Your task to perform on an android device: uninstall "Google Translate" Image 0: 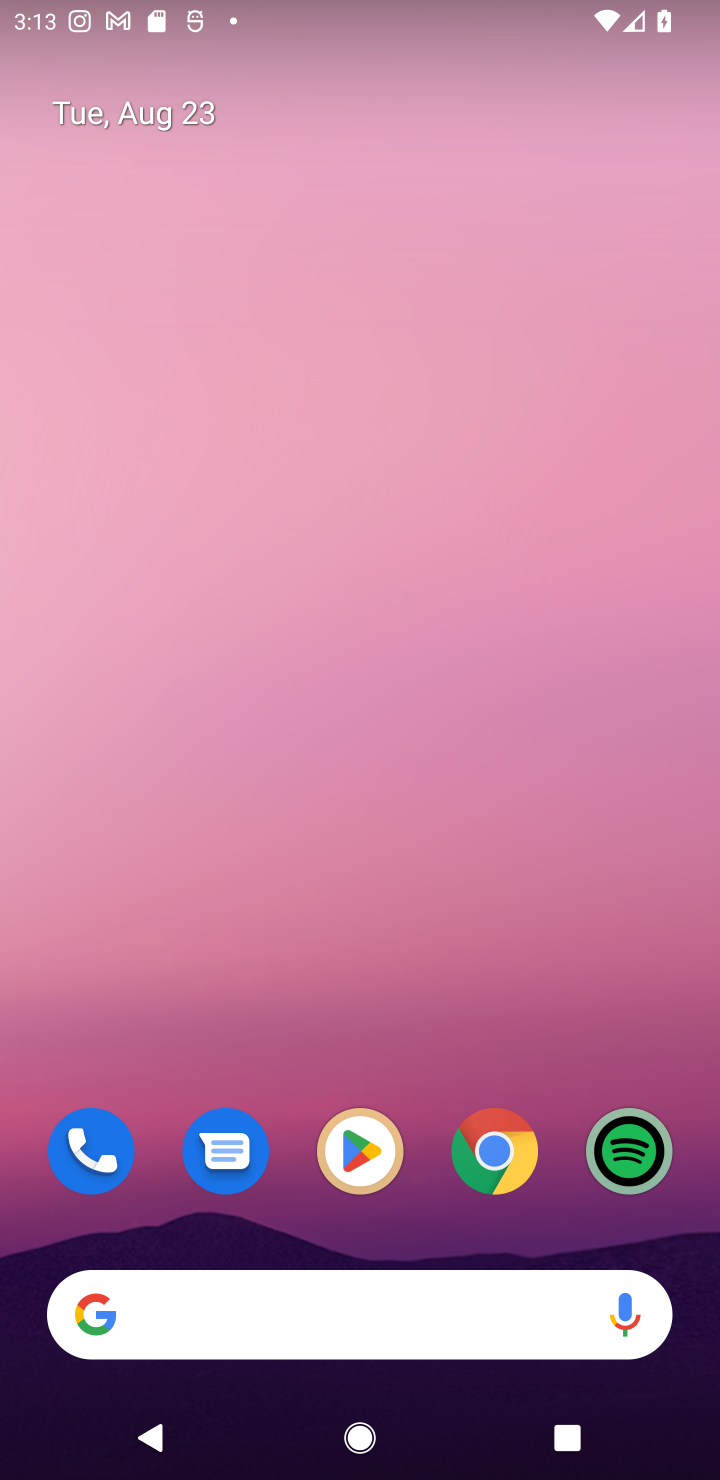
Step 0: press home button
Your task to perform on an android device: uninstall "Google Translate" Image 1: 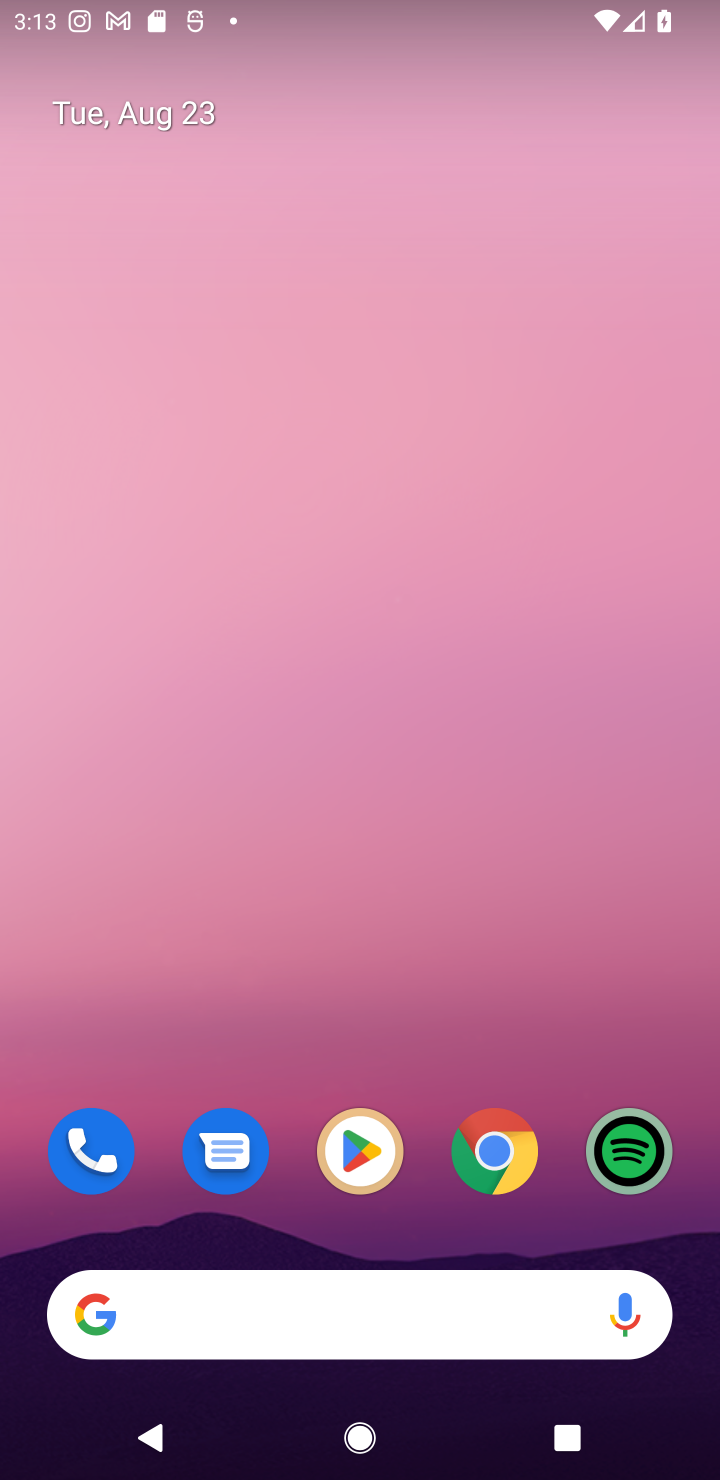
Step 1: click (366, 1143)
Your task to perform on an android device: uninstall "Google Translate" Image 2: 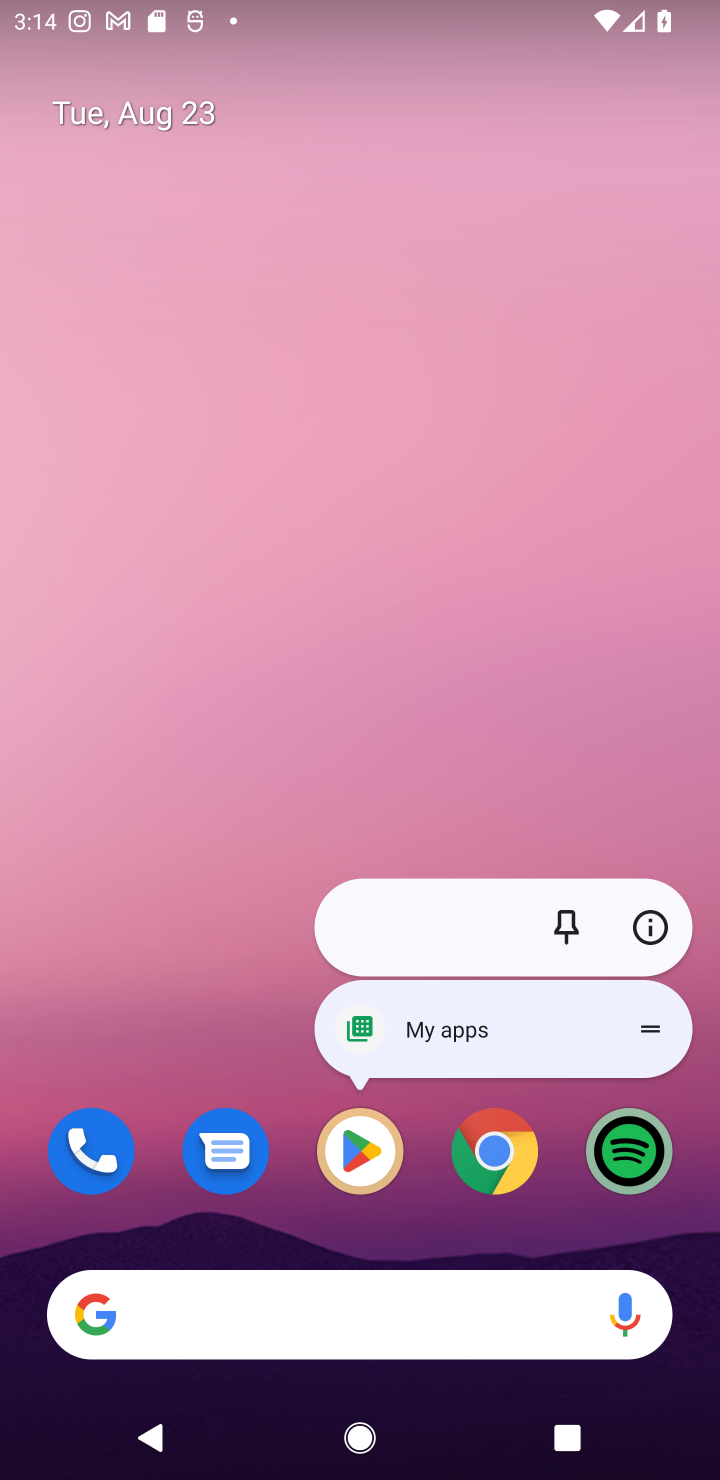
Step 2: click (366, 1143)
Your task to perform on an android device: uninstall "Google Translate" Image 3: 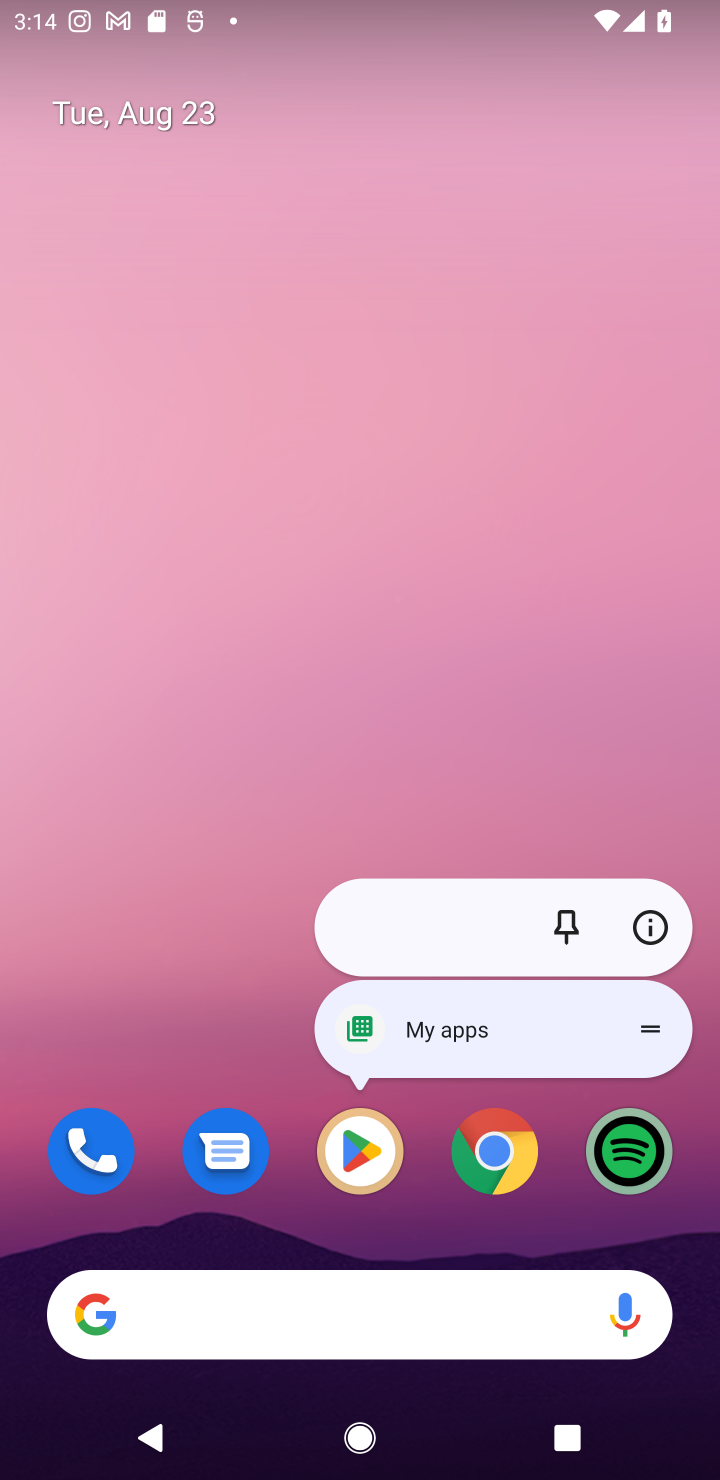
Step 3: click (366, 1141)
Your task to perform on an android device: uninstall "Google Translate" Image 4: 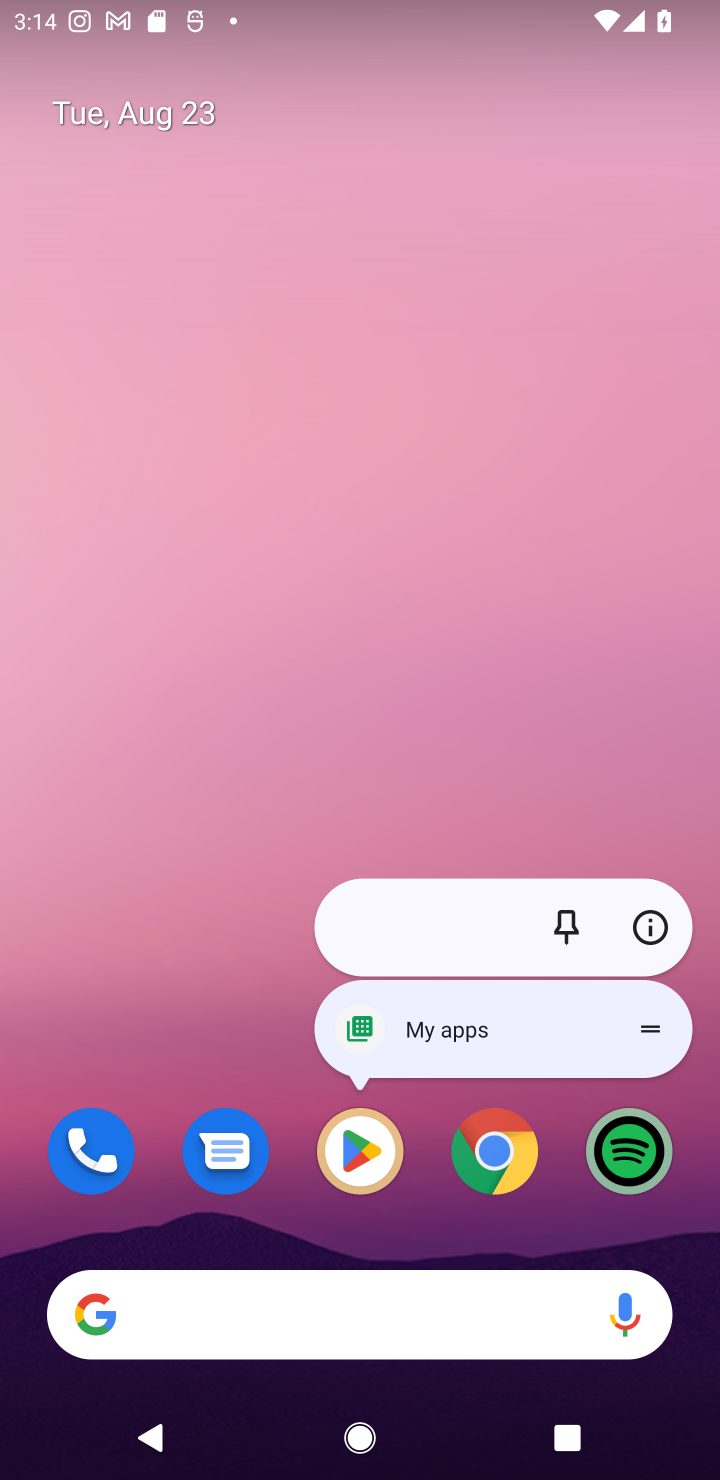
Step 4: click (347, 1164)
Your task to perform on an android device: uninstall "Google Translate" Image 5: 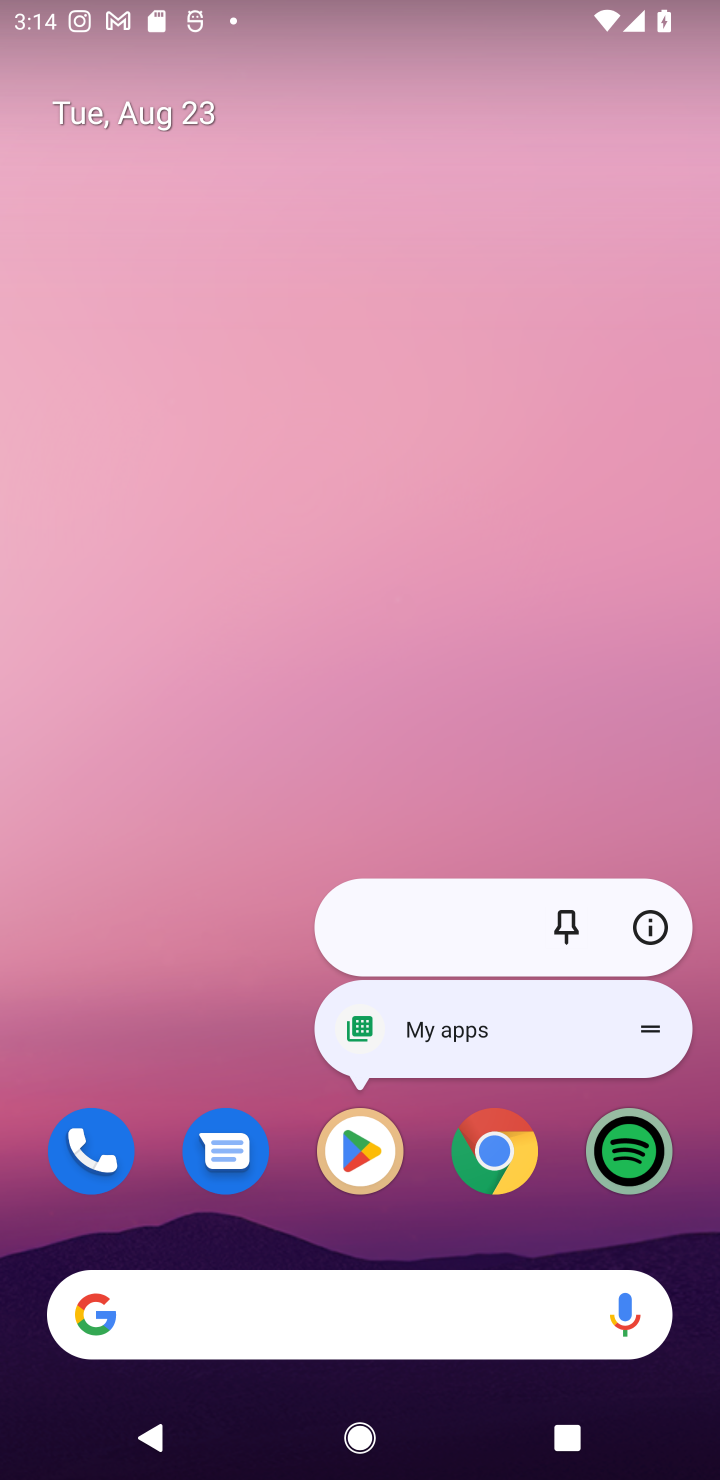
Step 5: click (349, 1154)
Your task to perform on an android device: uninstall "Google Translate" Image 6: 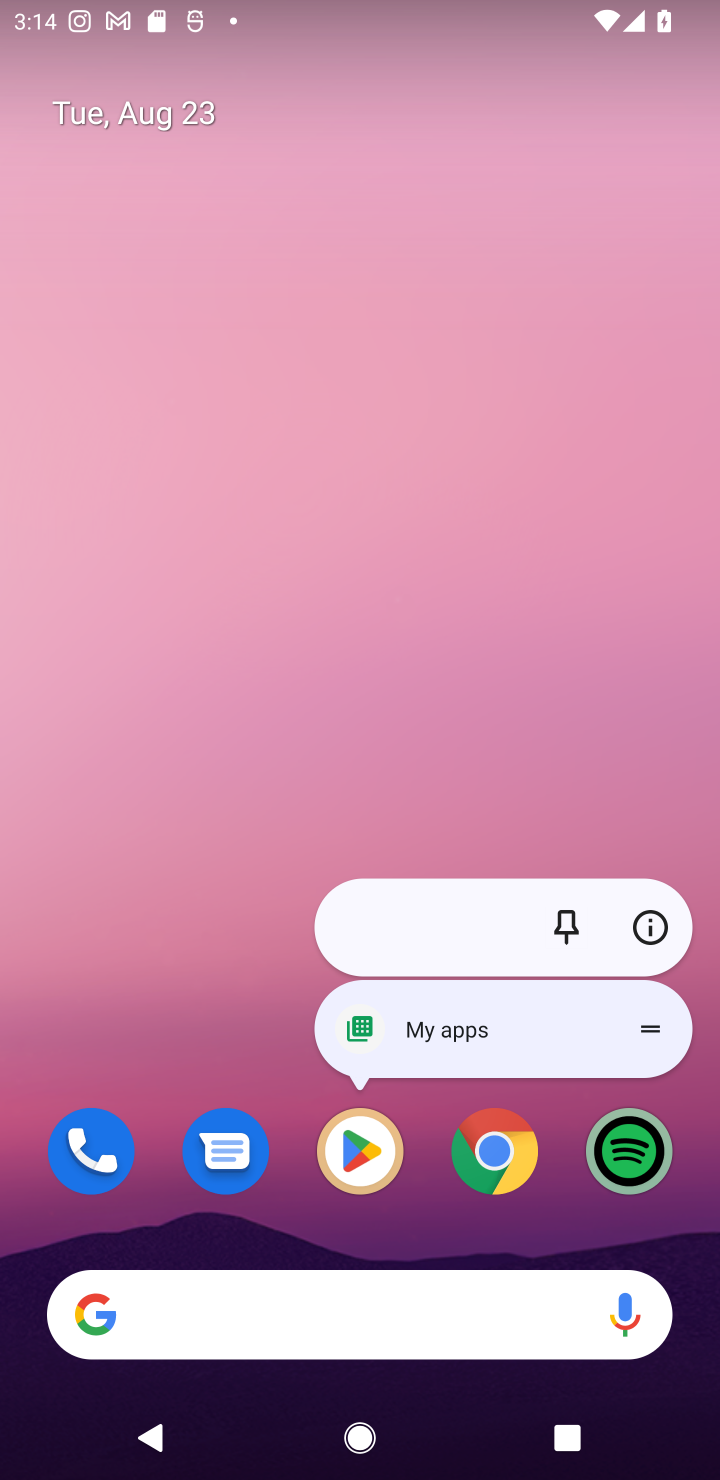
Step 6: click (349, 1154)
Your task to perform on an android device: uninstall "Google Translate" Image 7: 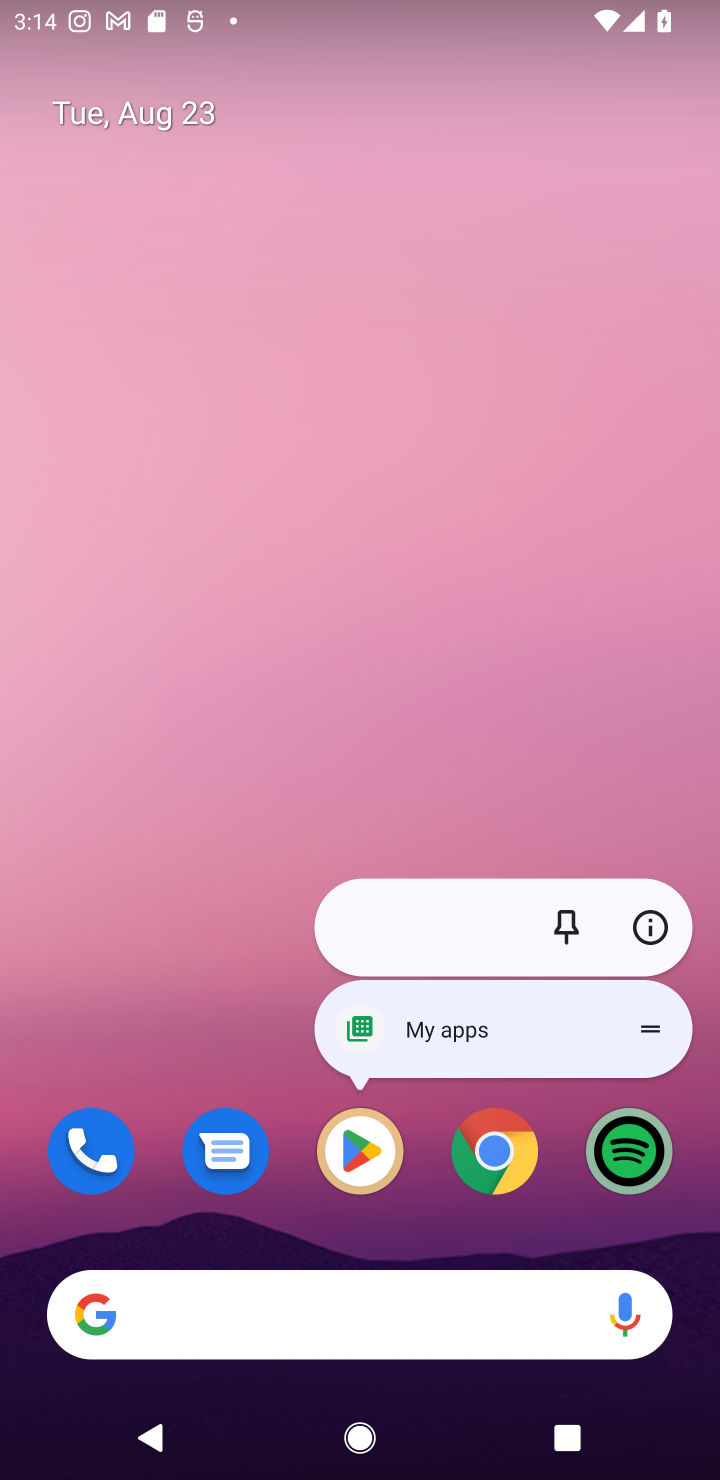
Step 7: click (349, 1156)
Your task to perform on an android device: uninstall "Google Translate" Image 8: 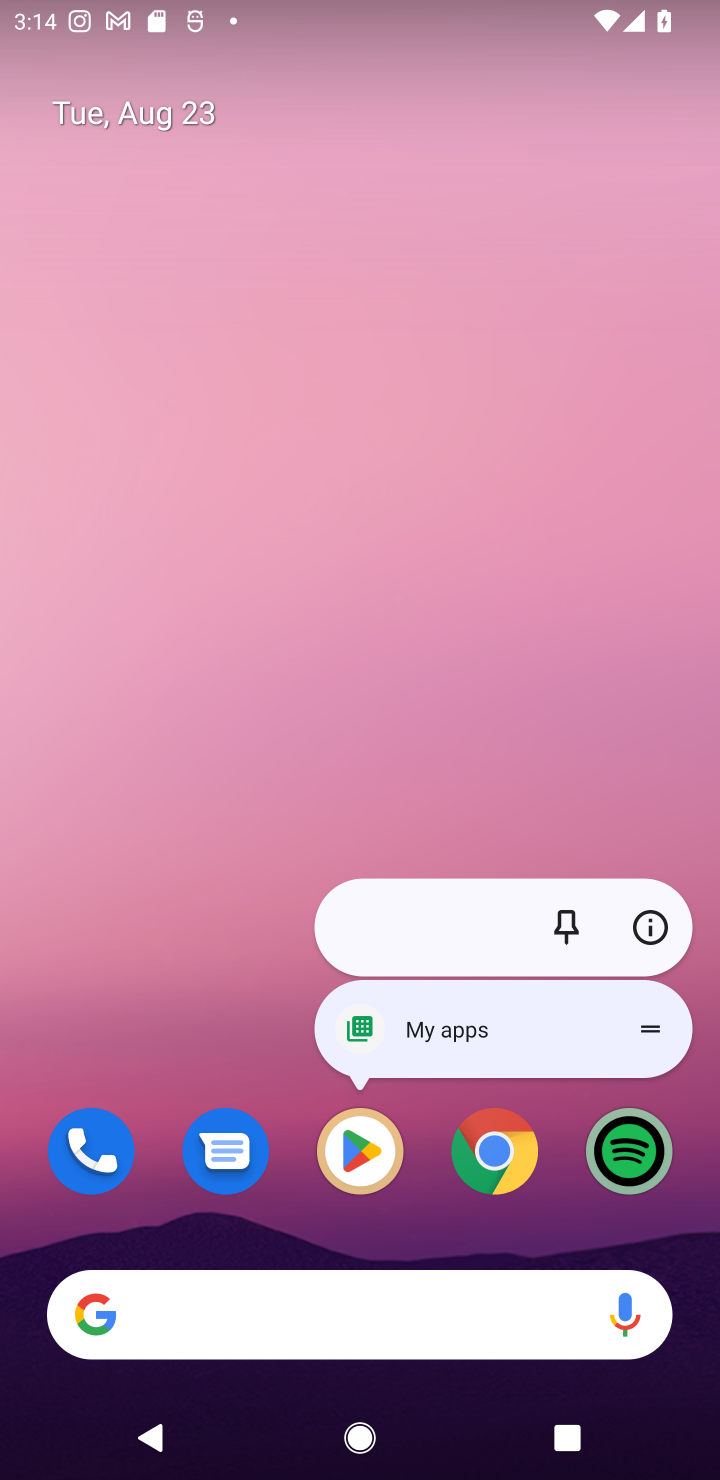
Step 8: click (349, 1156)
Your task to perform on an android device: uninstall "Google Translate" Image 9: 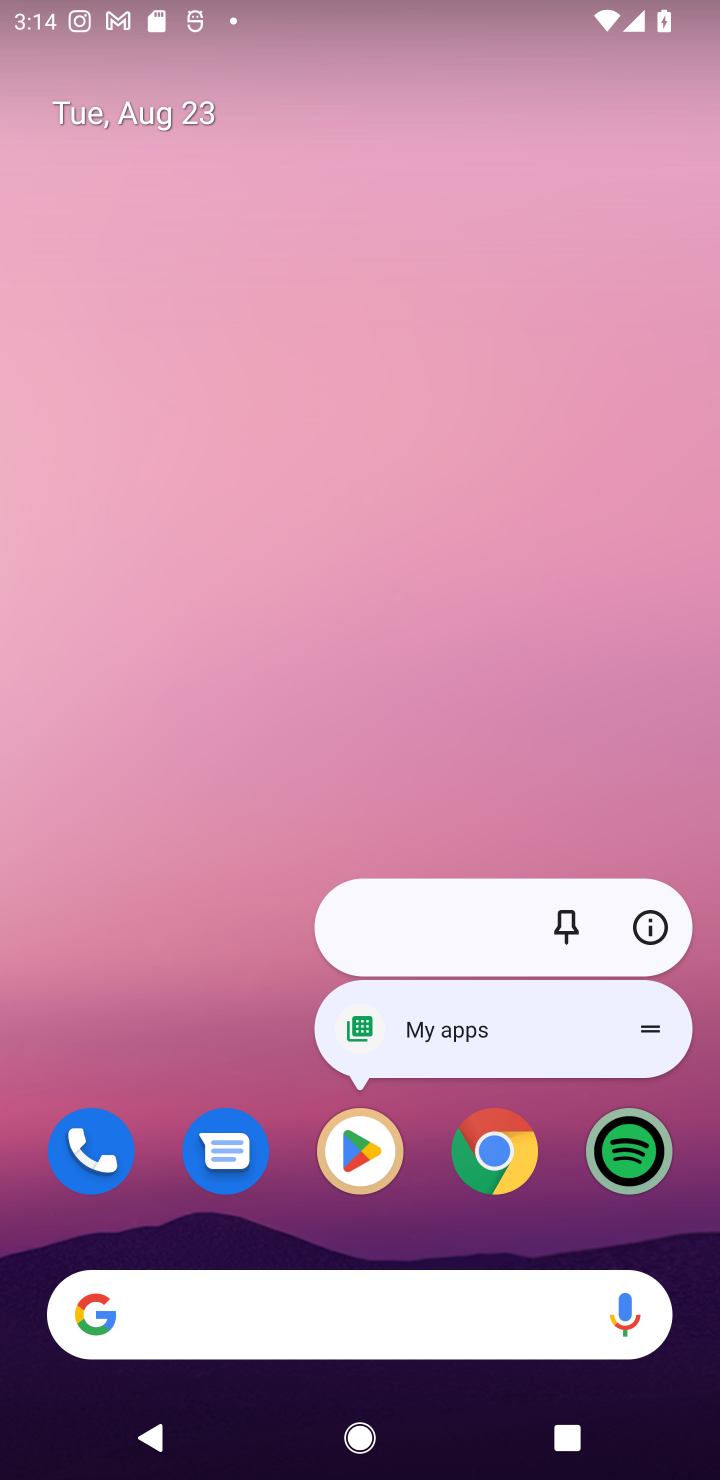
Step 9: click (356, 1153)
Your task to perform on an android device: uninstall "Google Translate" Image 10: 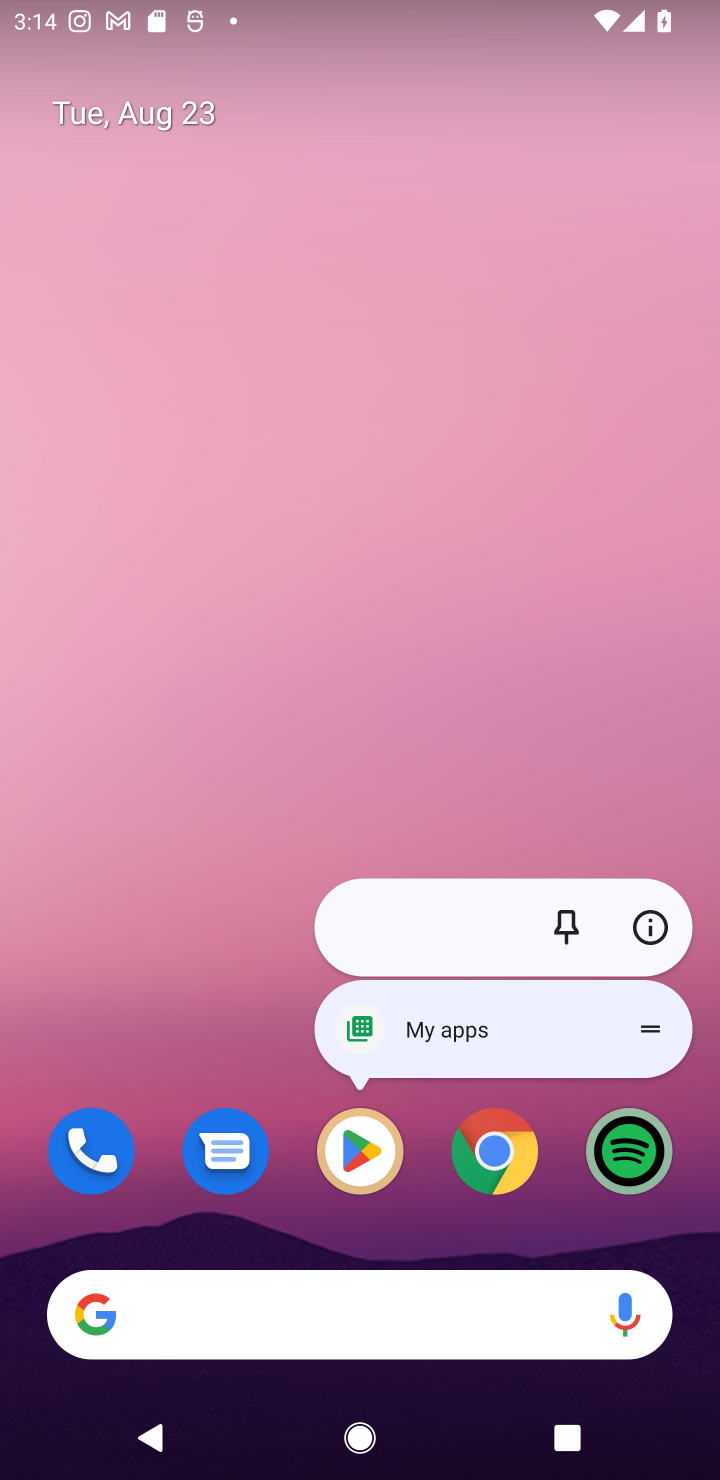
Step 10: click (366, 1158)
Your task to perform on an android device: uninstall "Google Translate" Image 11: 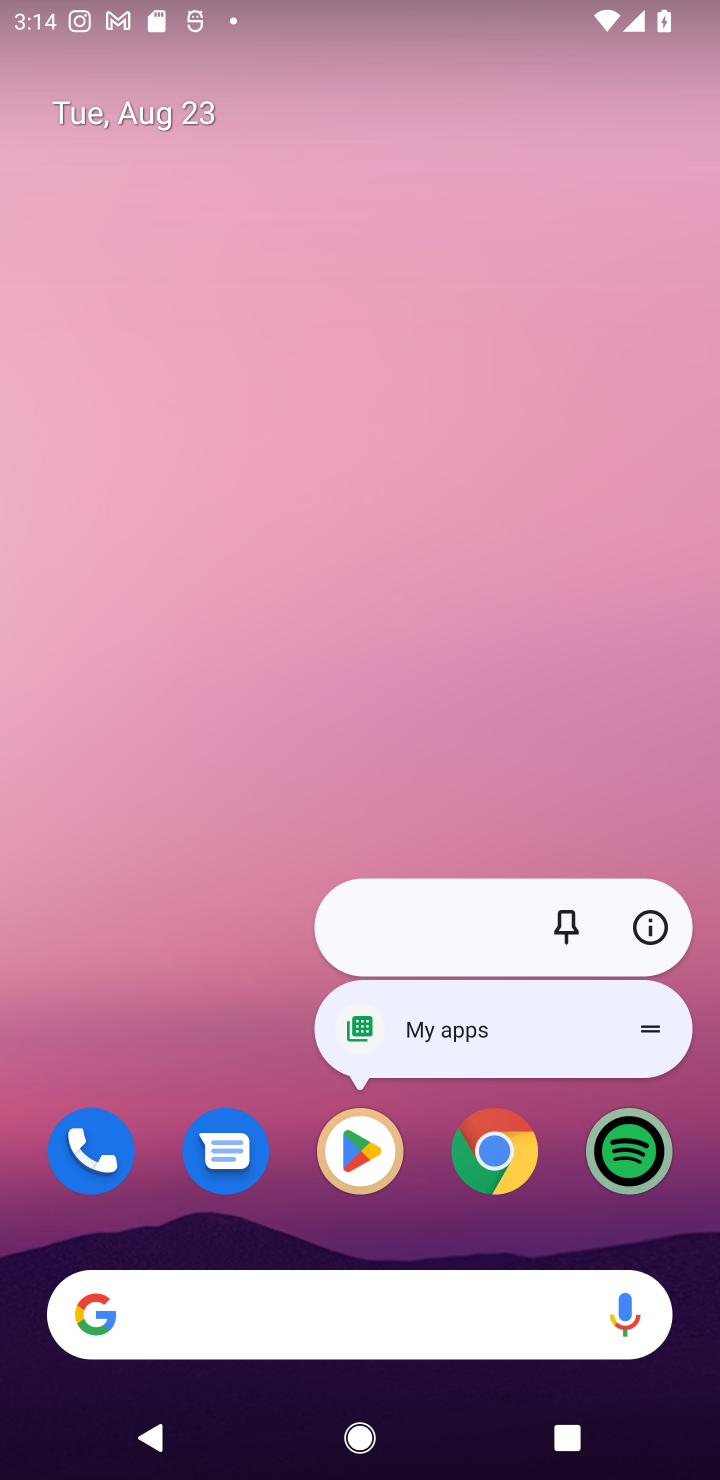
Step 11: click (366, 1158)
Your task to perform on an android device: uninstall "Google Translate" Image 12: 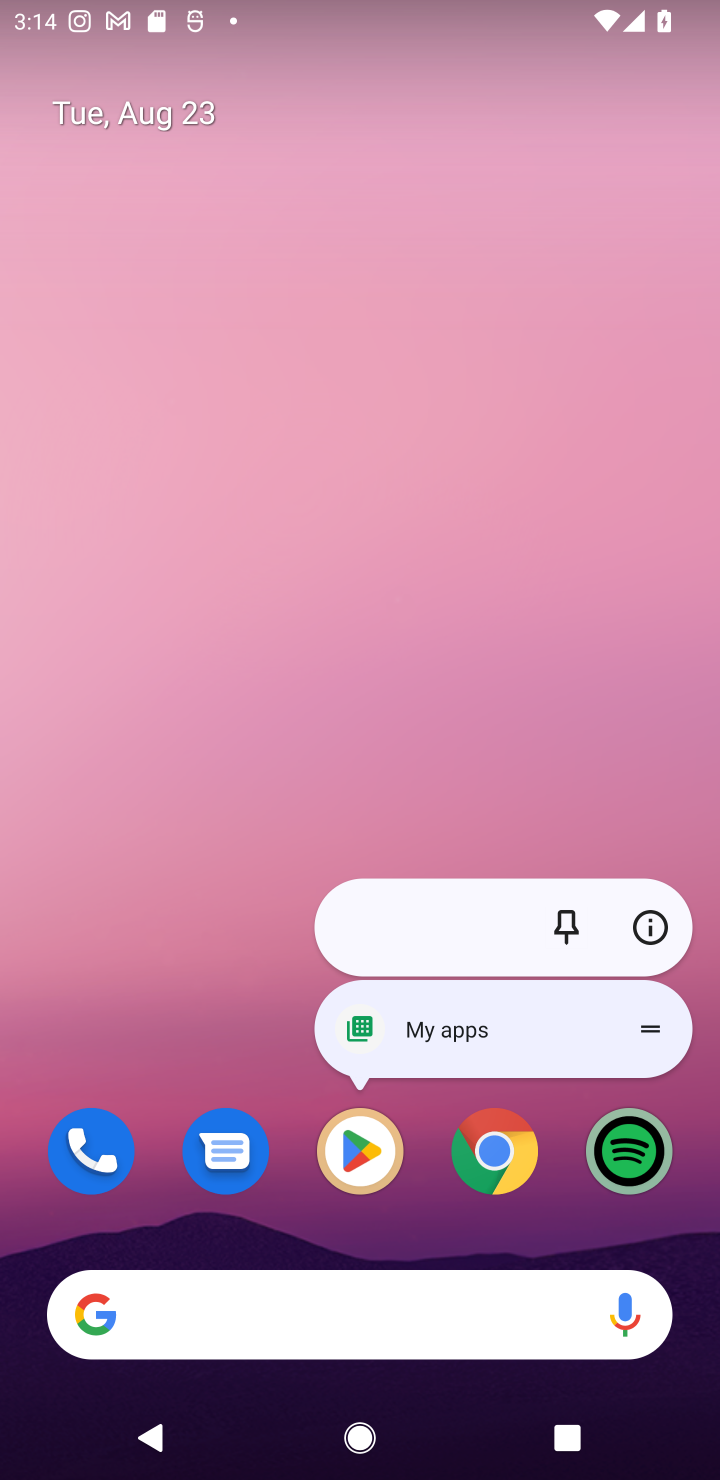
Step 12: click (366, 1162)
Your task to perform on an android device: uninstall "Google Translate" Image 13: 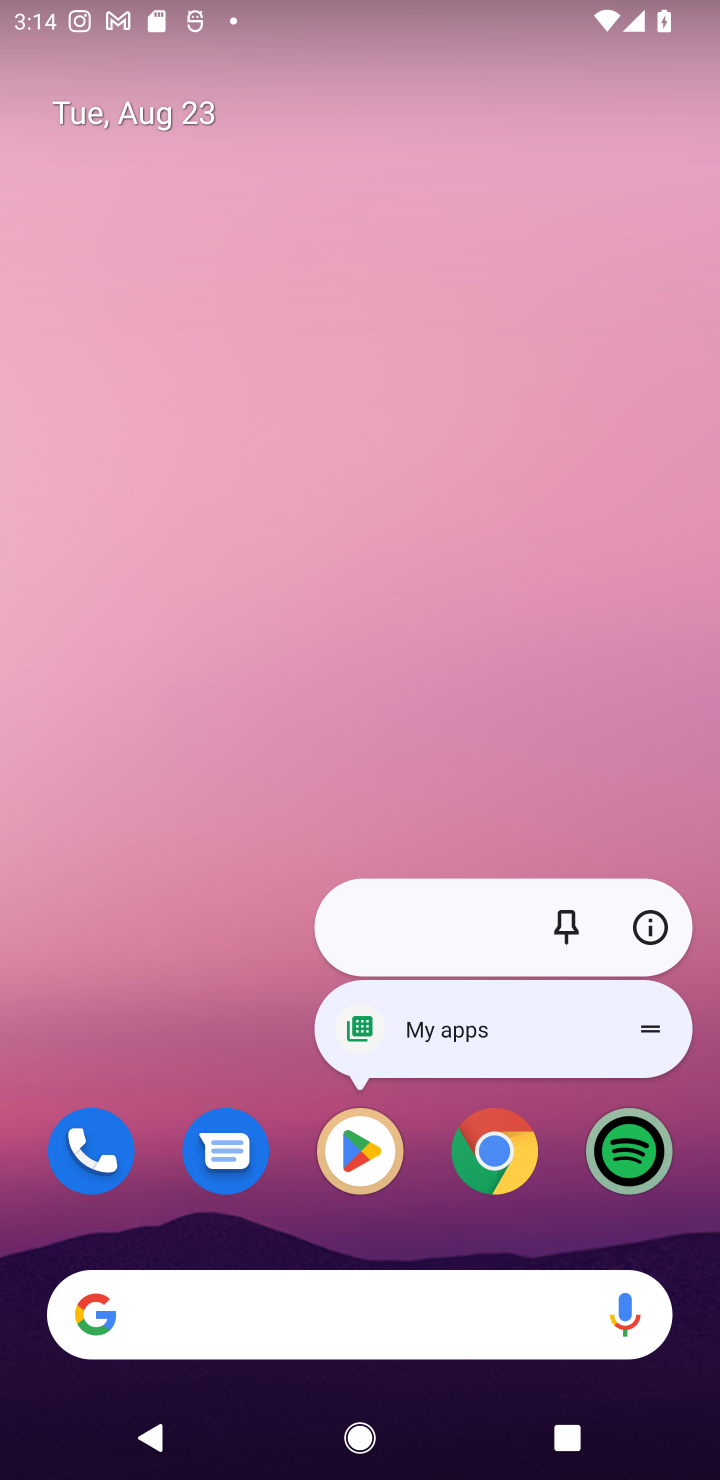
Step 13: click (366, 1162)
Your task to perform on an android device: uninstall "Google Translate" Image 14: 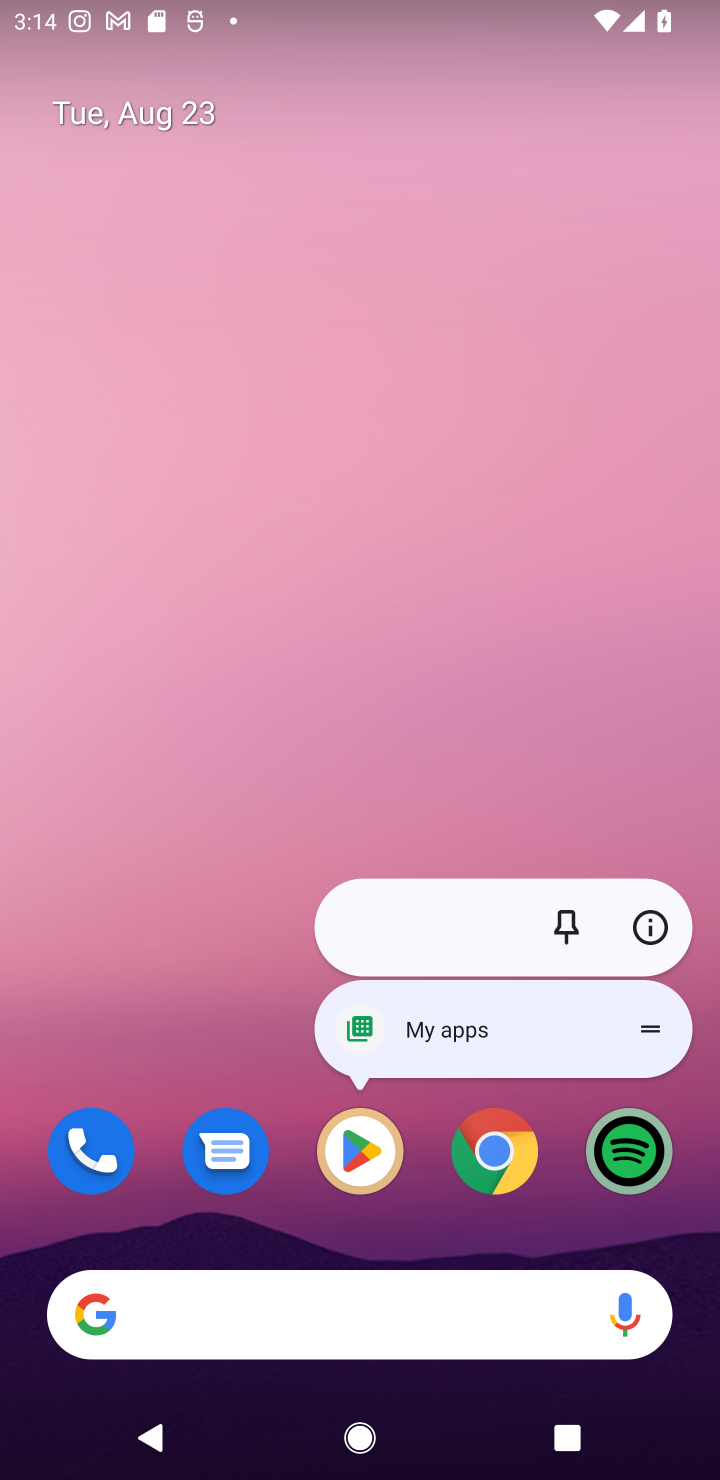
Step 14: click (359, 1158)
Your task to perform on an android device: uninstall "Google Translate" Image 15: 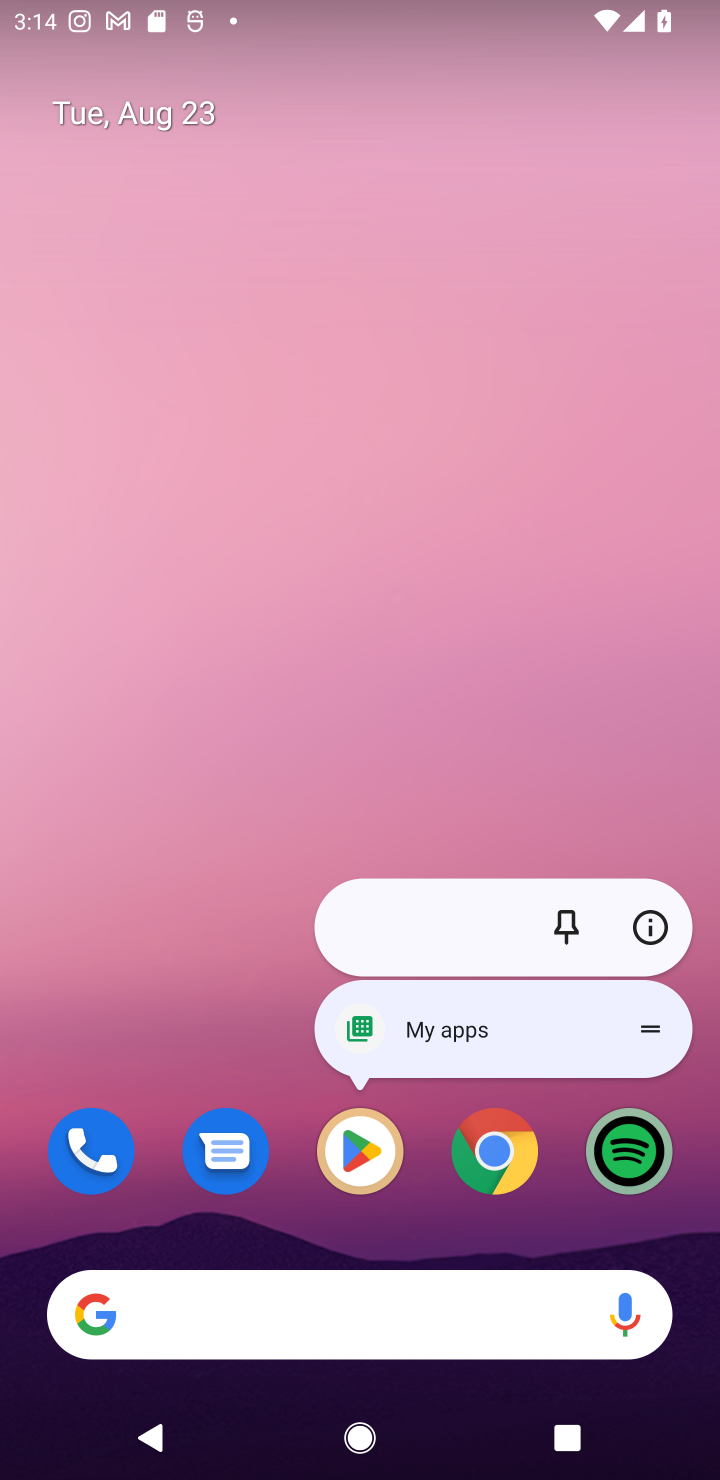
Step 15: click (359, 1158)
Your task to perform on an android device: uninstall "Google Translate" Image 16: 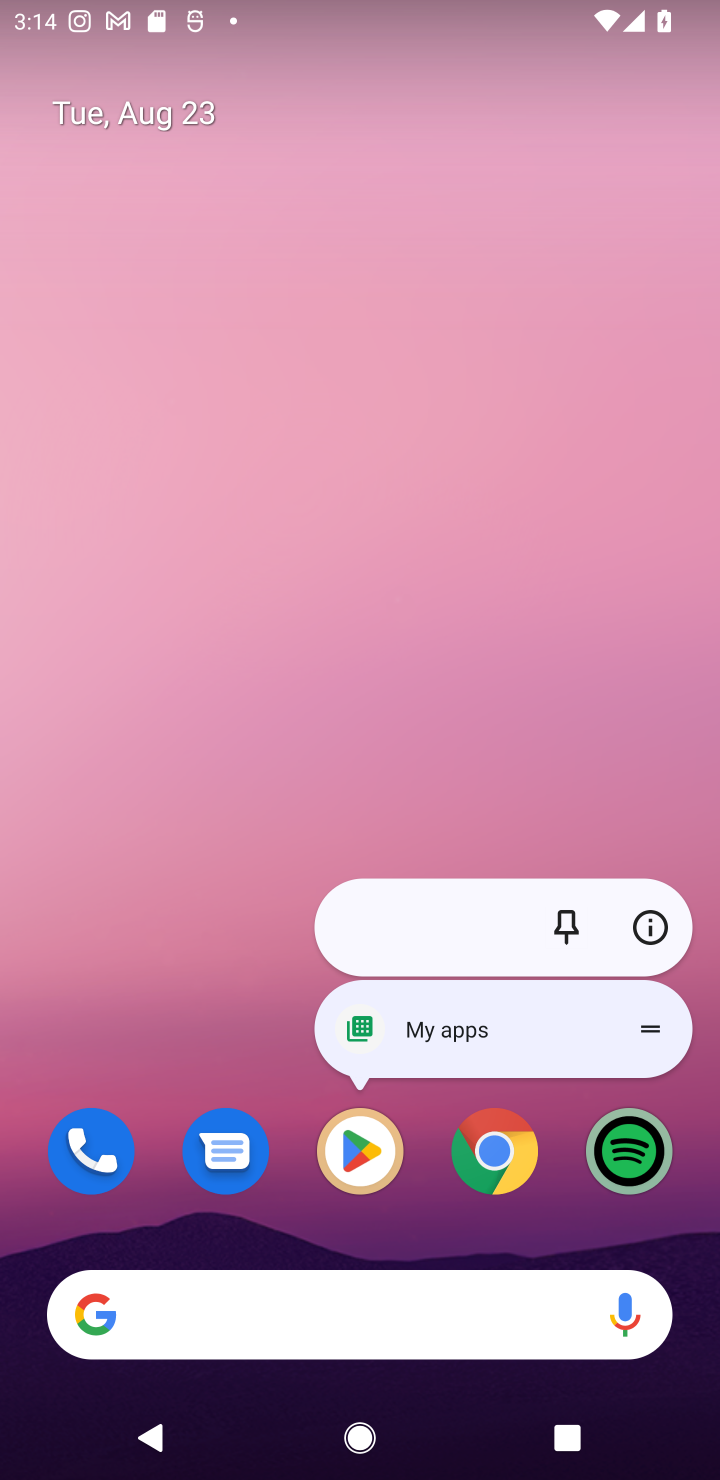
Step 16: click (359, 1158)
Your task to perform on an android device: uninstall "Google Translate" Image 17: 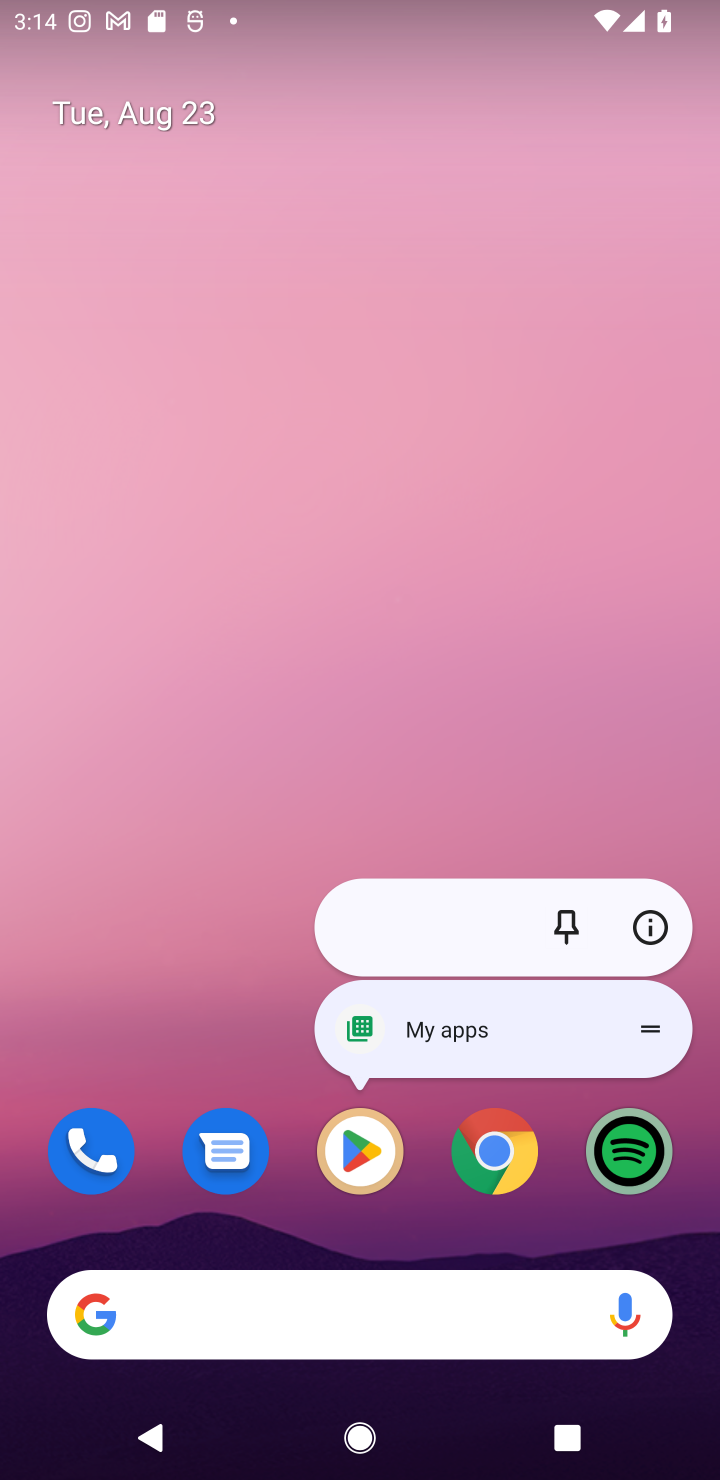
Step 17: click (359, 1153)
Your task to perform on an android device: uninstall "Google Translate" Image 18: 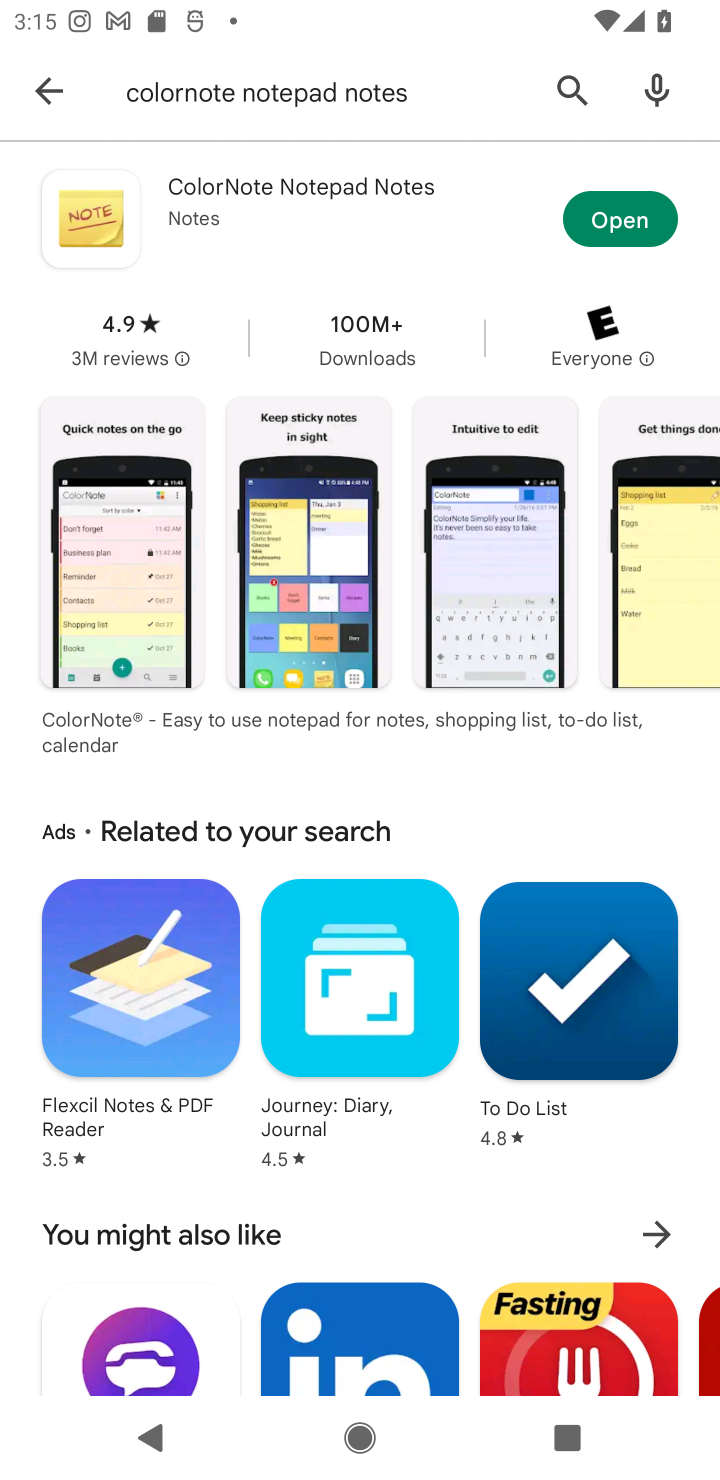
Step 18: click (568, 82)
Your task to perform on an android device: uninstall "Google Translate" Image 19: 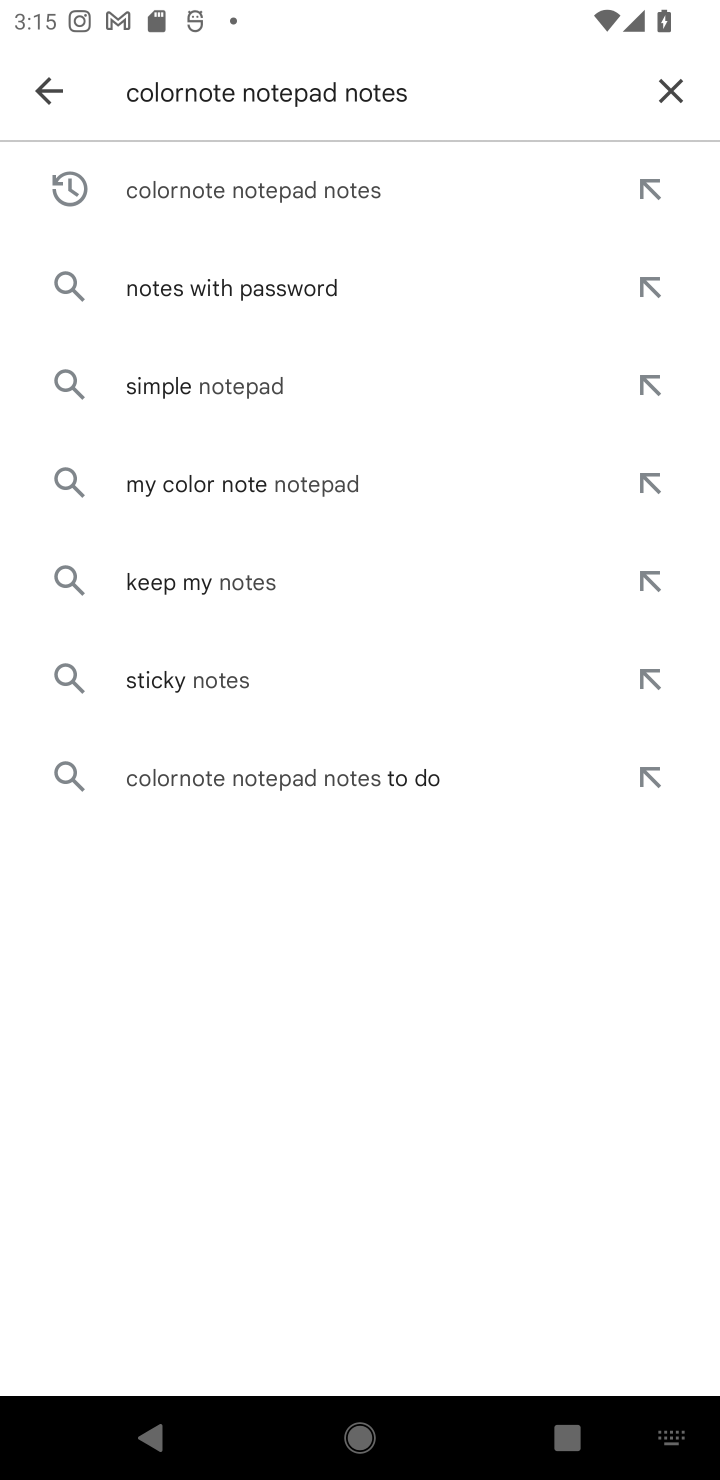
Step 19: click (659, 80)
Your task to perform on an android device: uninstall "Google Translate" Image 20: 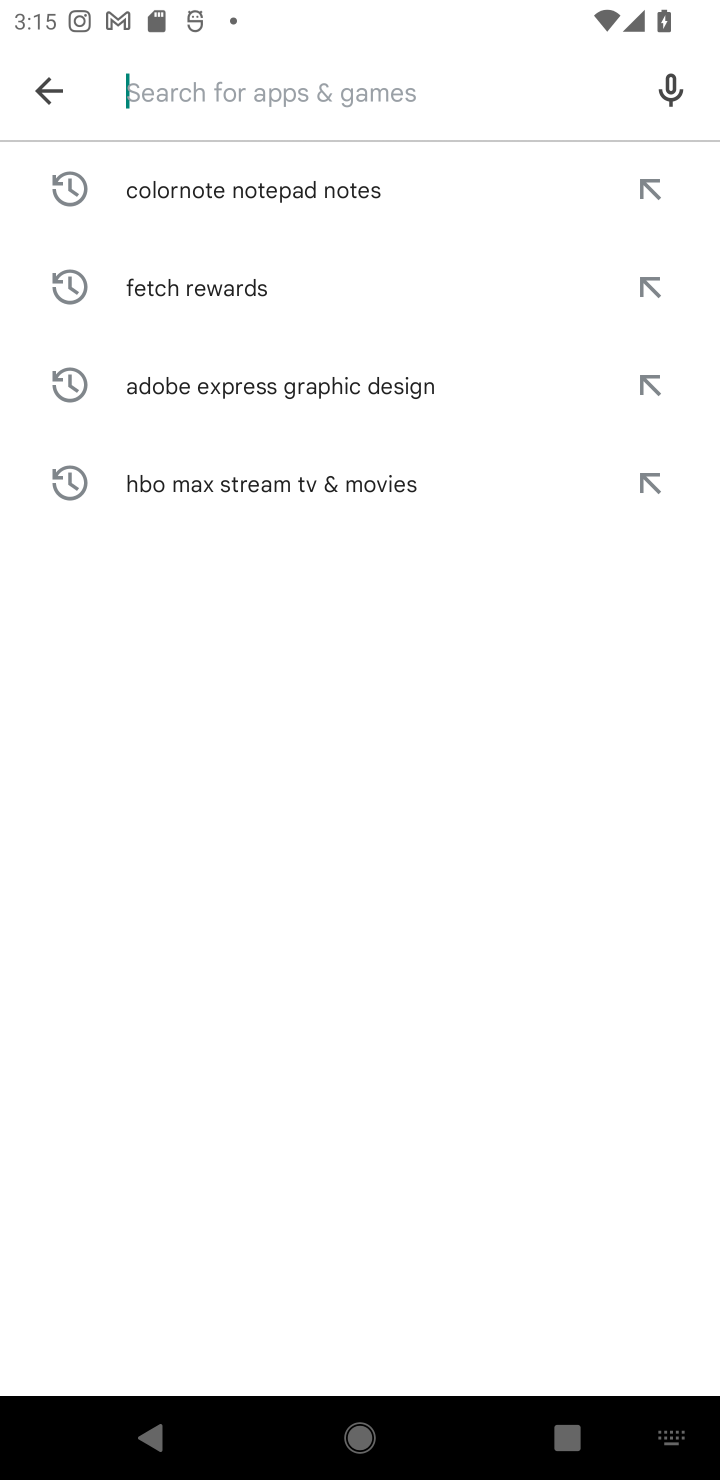
Step 20: type "Google Translate"
Your task to perform on an android device: uninstall "Google Translate" Image 21: 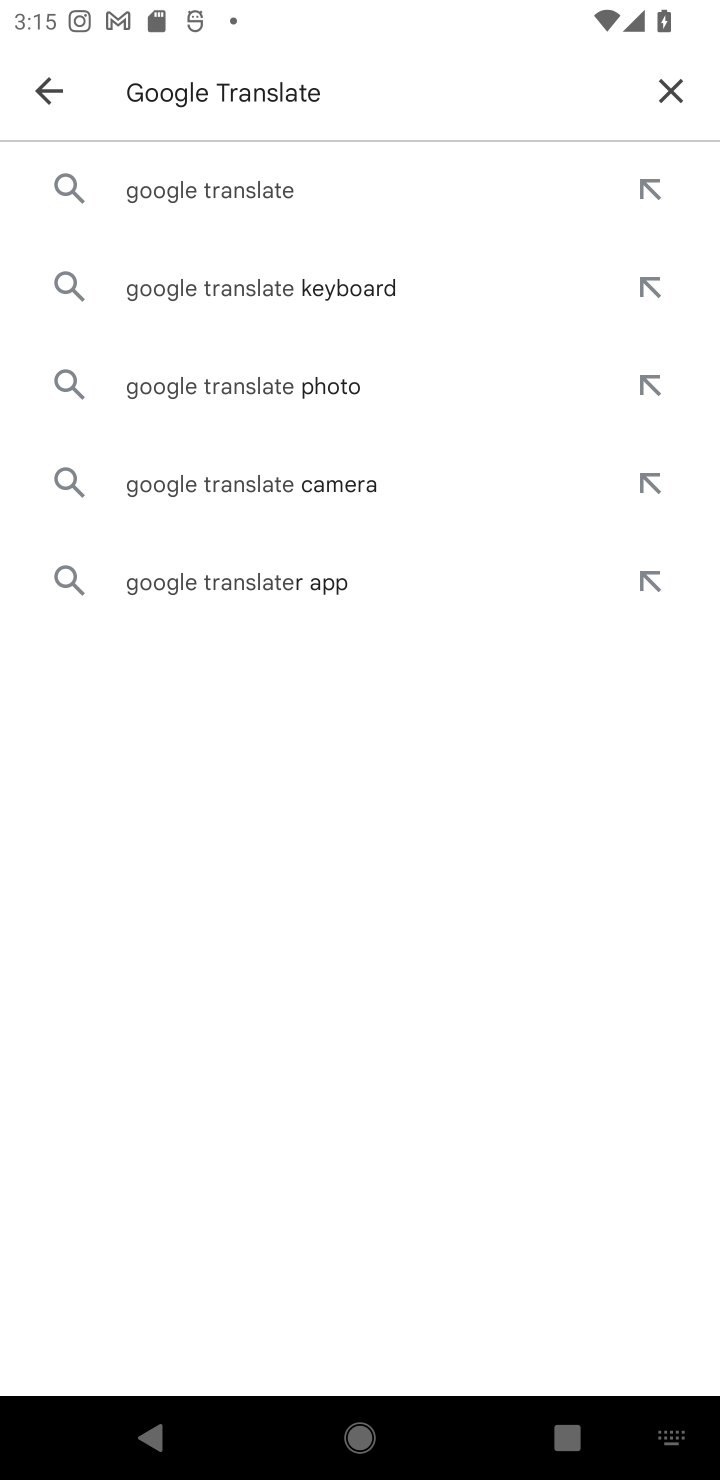
Step 21: click (245, 195)
Your task to perform on an android device: uninstall "Google Translate" Image 22: 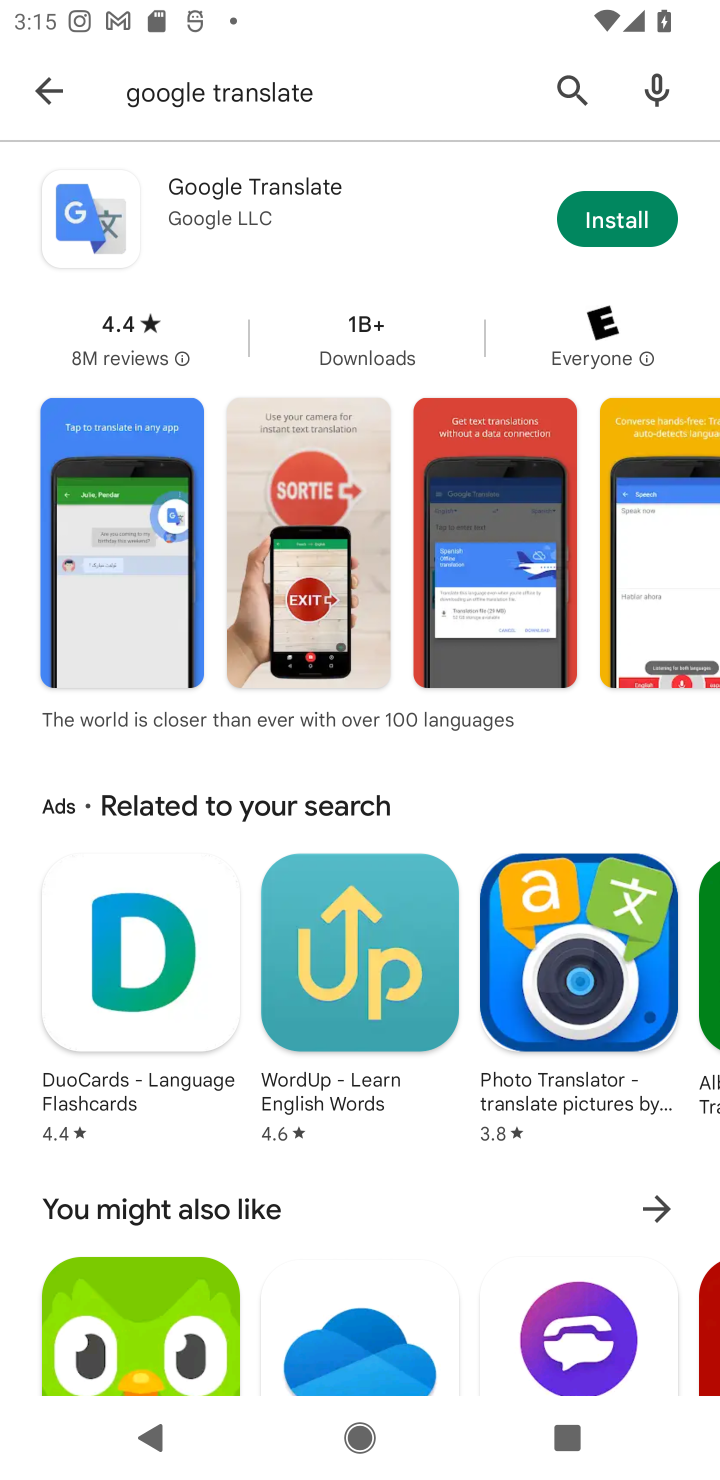
Step 22: task complete